Your task to perform on an android device: toggle airplane mode Image 0: 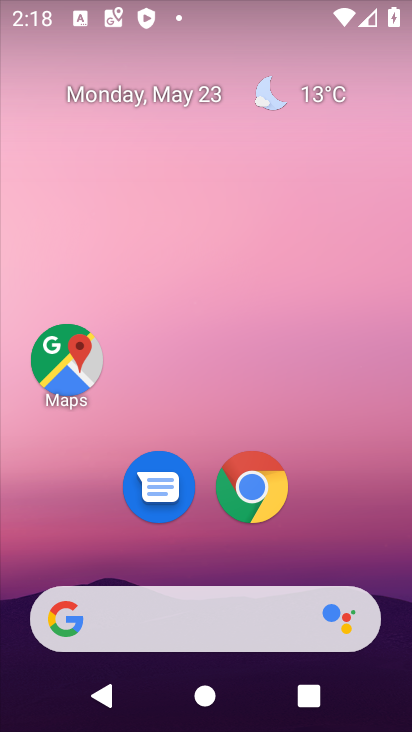
Step 0: drag from (393, 622) to (360, 36)
Your task to perform on an android device: toggle airplane mode Image 1: 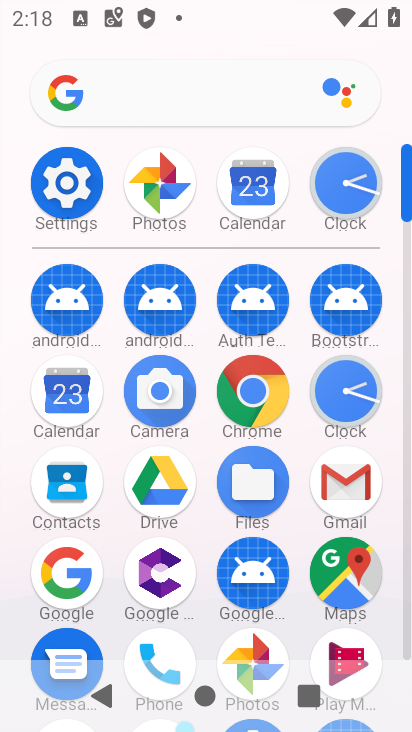
Step 1: click (408, 642)
Your task to perform on an android device: toggle airplane mode Image 2: 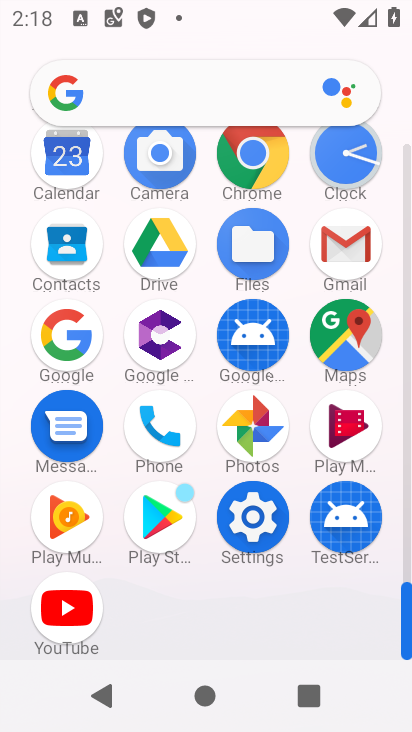
Step 2: click (252, 517)
Your task to perform on an android device: toggle airplane mode Image 3: 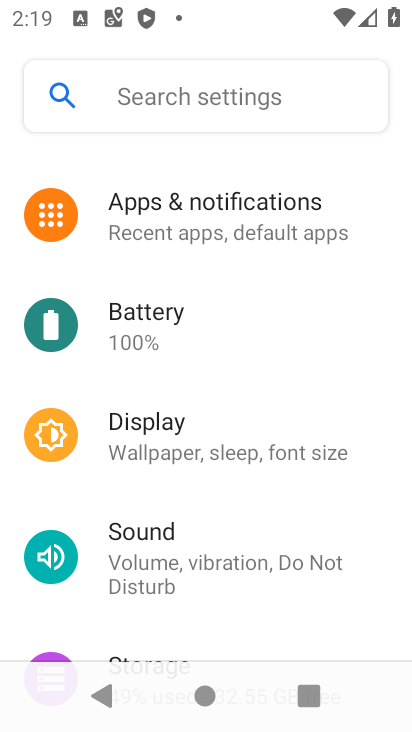
Step 3: drag from (353, 245) to (326, 621)
Your task to perform on an android device: toggle airplane mode Image 4: 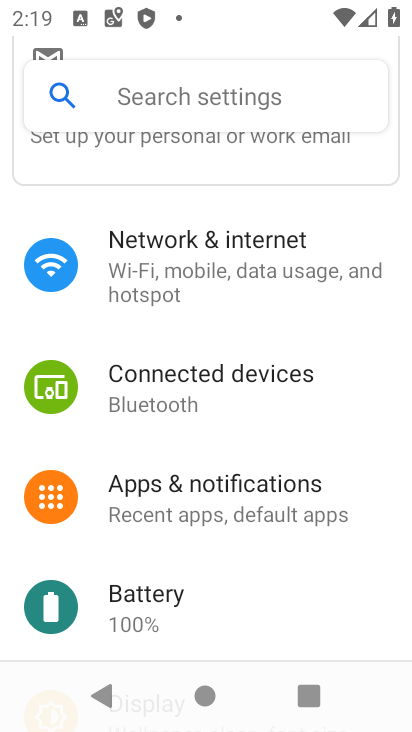
Step 4: click (146, 247)
Your task to perform on an android device: toggle airplane mode Image 5: 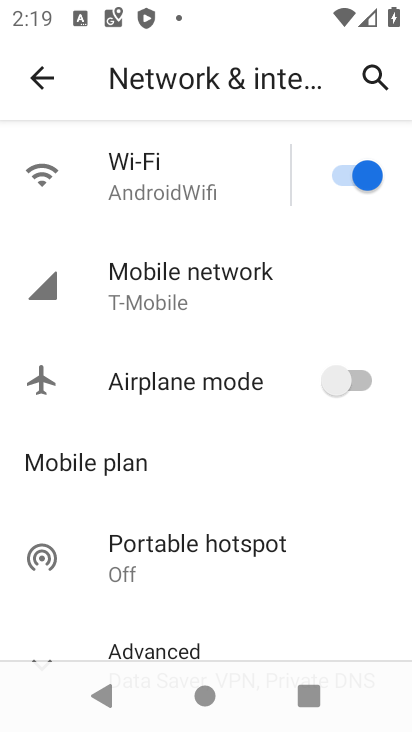
Step 5: click (360, 381)
Your task to perform on an android device: toggle airplane mode Image 6: 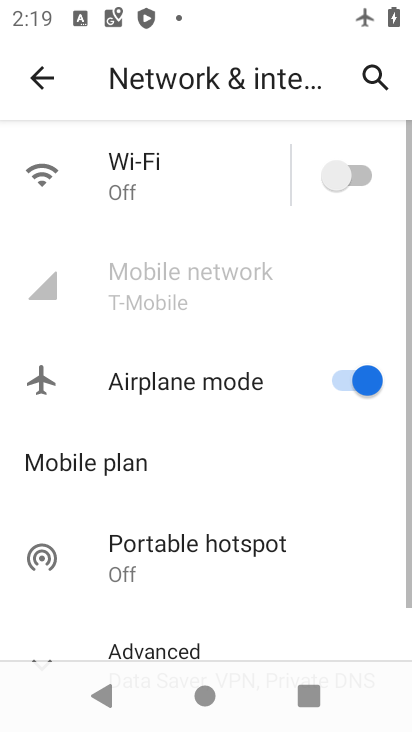
Step 6: task complete